Your task to perform on an android device: Go to internet settings Image 0: 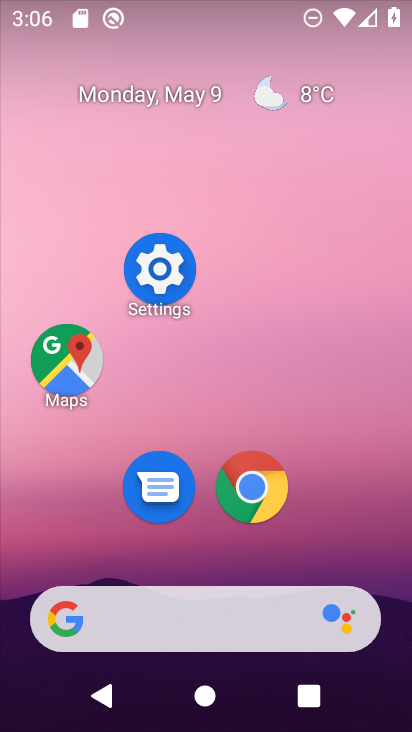
Step 0: click (161, 266)
Your task to perform on an android device: Go to internet settings Image 1: 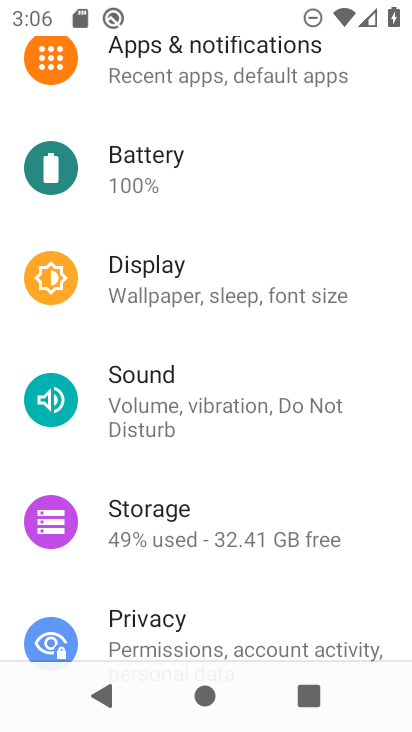
Step 1: drag from (197, 168) to (177, 485)
Your task to perform on an android device: Go to internet settings Image 2: 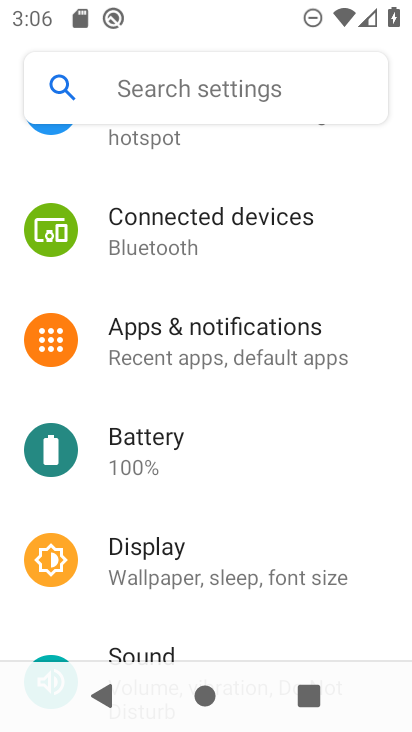
Step 2: drag from (167, 202) to (174, 464)
Your task to perform on an android device: Go to internet settings Image 3: 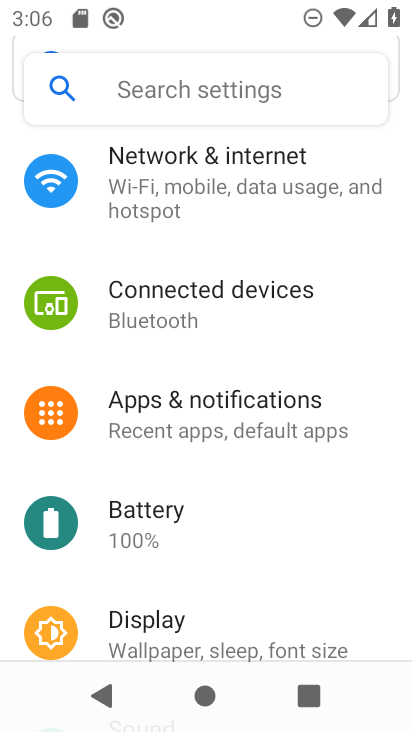
Step 3: click (192, 161)
Your task to perform on an android device: Go to internet settings Image 4: 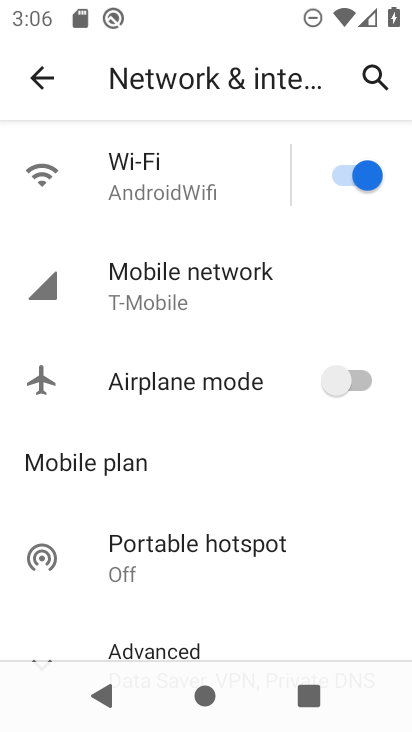
Step 4: task complete